Your task to perform on an android device: Open CNN.com Image 0: 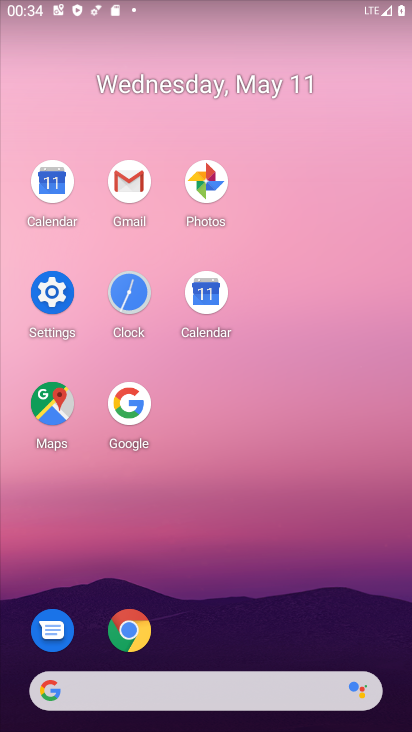
Step 0: click (130, 636)
Your task to perform on an android device: Open CNN.com Image 1: 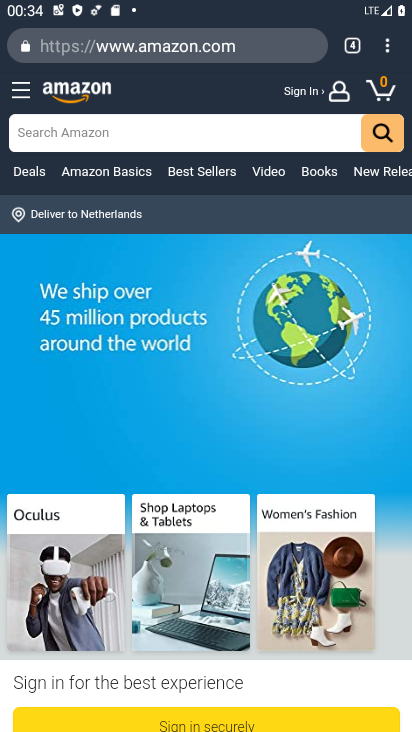
Step 1: click (362, 50)
Your task to perform on an android device: Open CNN.com Image 2: 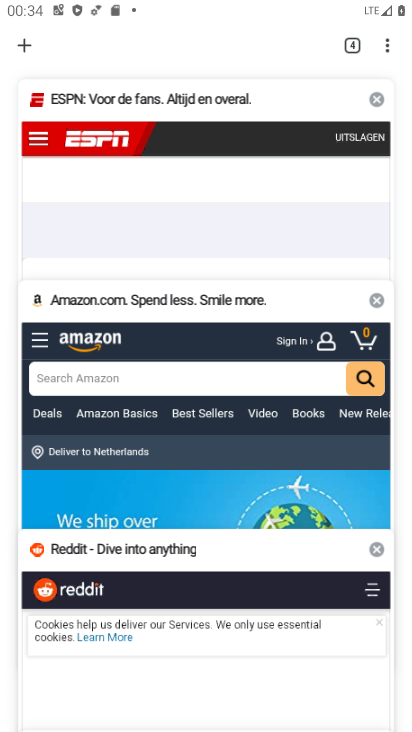
Step 2: drag from (223, 216) to (236, 557)
Your task to perform on an android device: Open CNN.com Image 3: 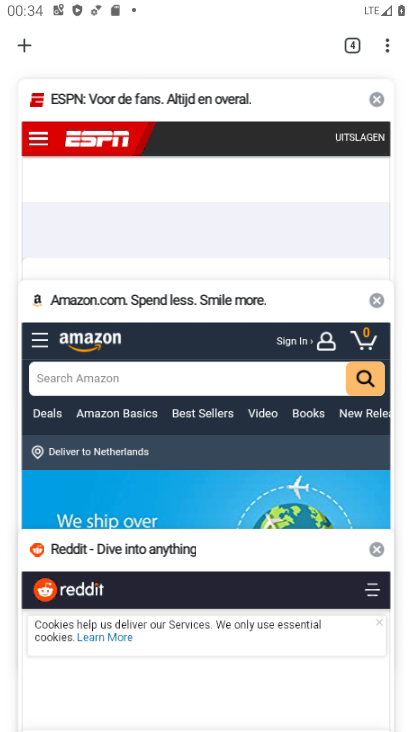
Step 3: click (17, 50)
Your task to perform on an android device: Open CNN.com Image 4: 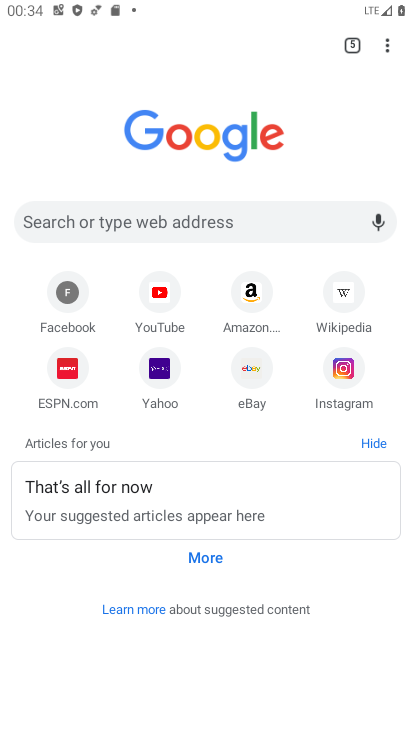
Step 4: click (198, 227)
Your task to perform on an android device: Open CNN.com Image 5: 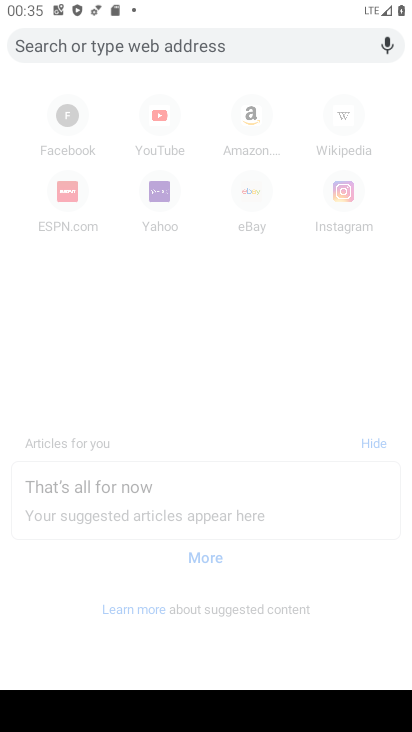
Step 5: type "cnn"
Your task to perform on an android device: Open CNN.com Image 6: 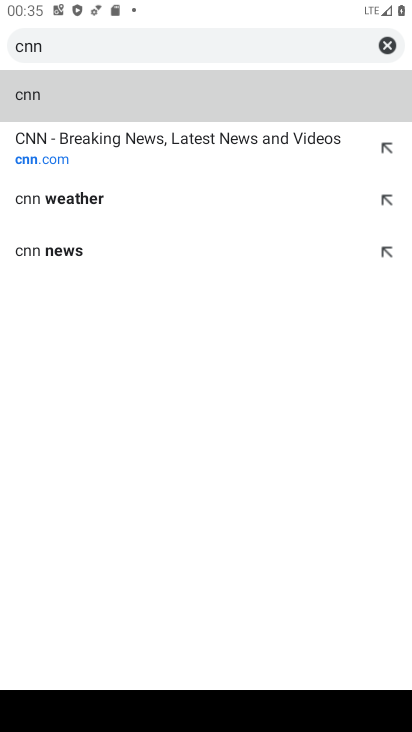
Step 6: click (23, 153)
Your task to perform on an android device: Open CNN.com Image 7: 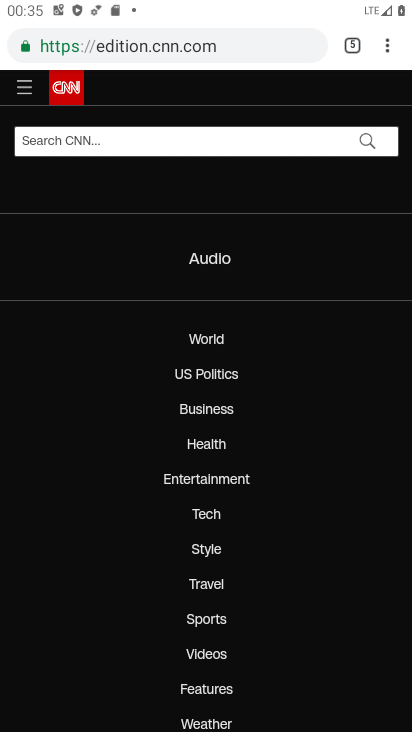
Step 7: task complete